Your task to perform on an android device: check android version Image 0: 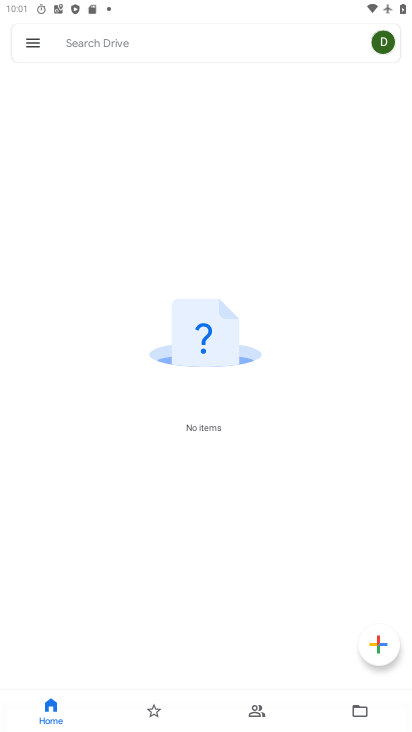
Step 0: press home button
Your task to perform on an android device: check android version Image 1: 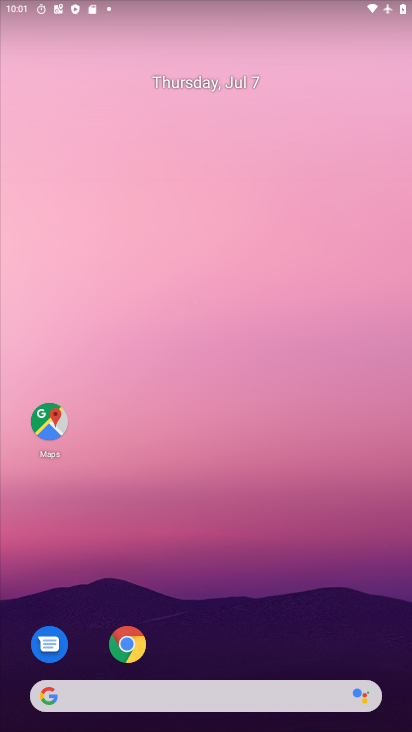
Step 1: drag from (290, 621) to (281, 51)
Your task to perform on an android device: check android version Image 2: 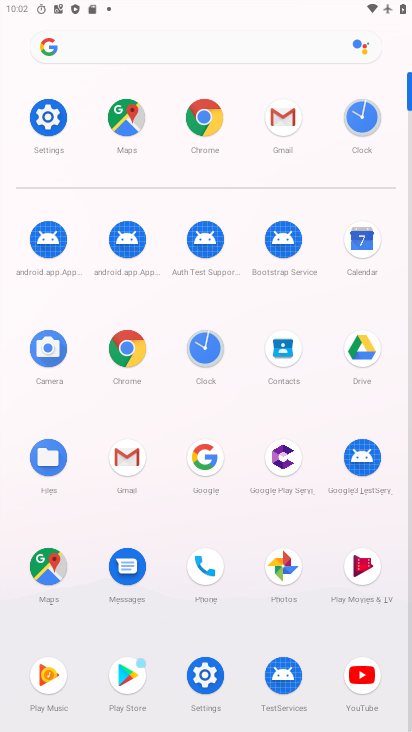
Step 2: click (51, 111)
Your task to perform on an android device: check android version Image 3: 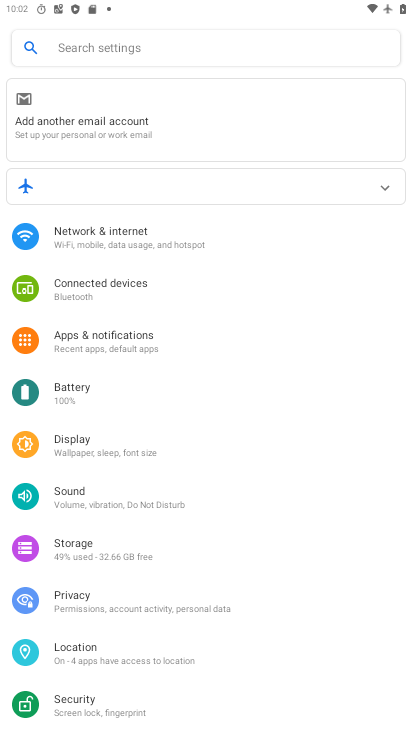
Step 3: drag from (165, 661) to (243, 103)
Your task to perform on an android device: check android version Image 4: 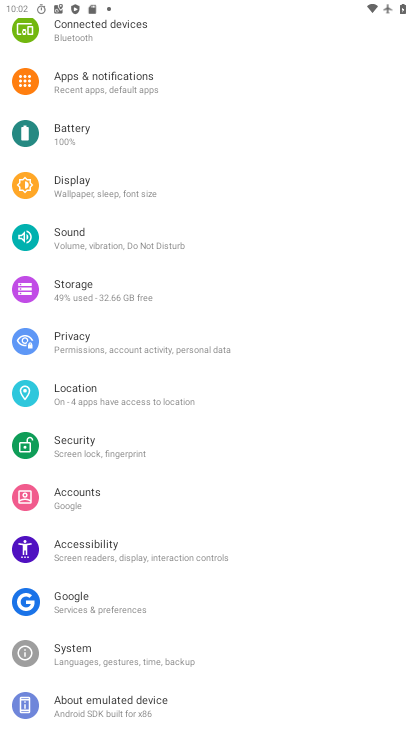
Step 4: click (106, 702)
Your task to perform on an android device: check android version Image 5: 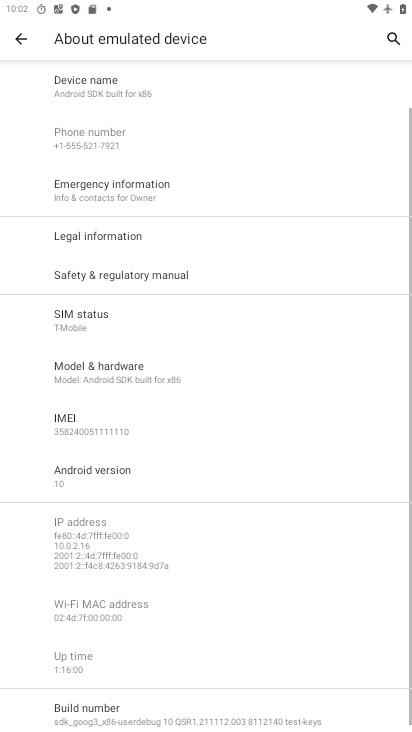
Step 5: click (83, 466)
Your task to perform on an android device: check android version Image 6: 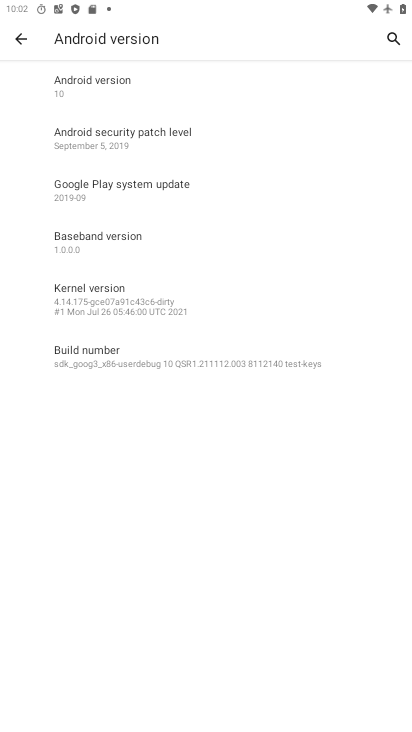
Step 6: click (114, 75)
Your task to perform on an android device: check android version Image 7: 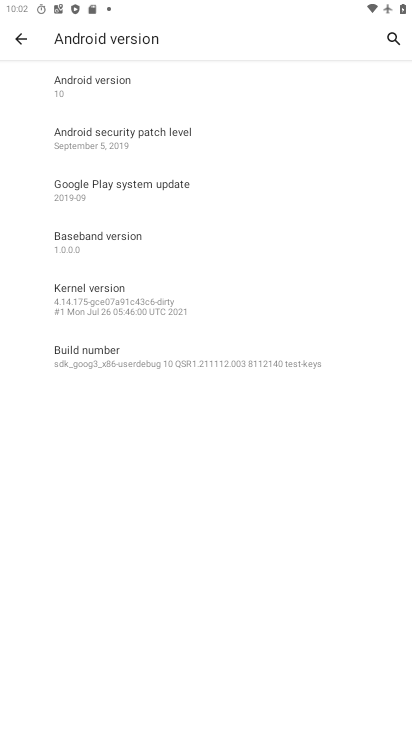
Step 7: task complete